Your task to perform on an android device: check battery use Image 0: 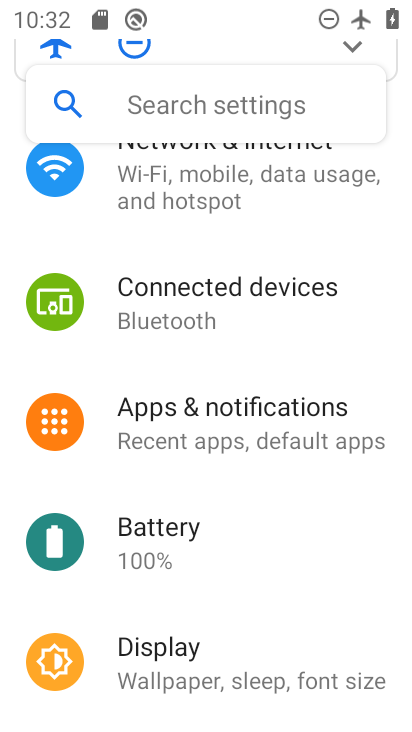
Step 0: press home button
Your task to perform on an android device: check battery use Image 1: 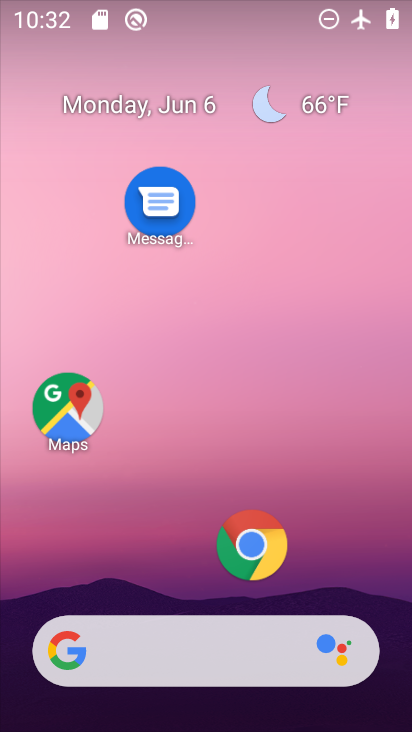
Step 1: drag from (161, 578) to (89, 171)
Your task to perform on an android device: check battery use Image 2: 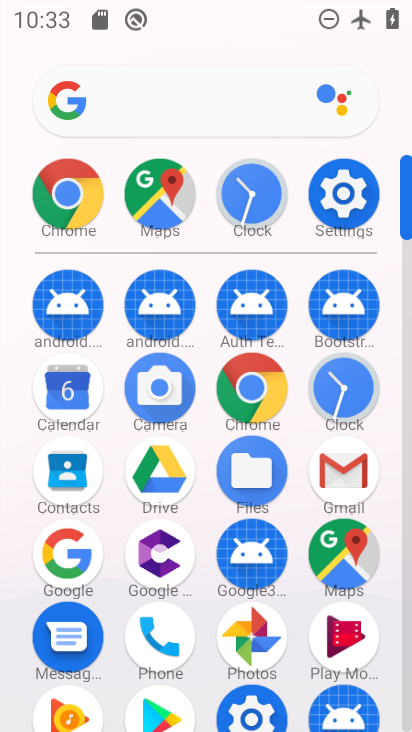
Step 2: click (341, 194)
Your task to perform on an android device: check battery use Image 3: 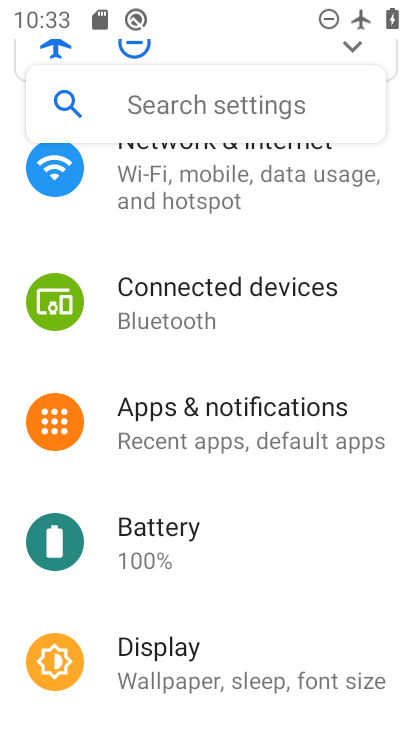
Step 3: click (175, 556)
Your task to perform on an android device: check battery use Image 4: 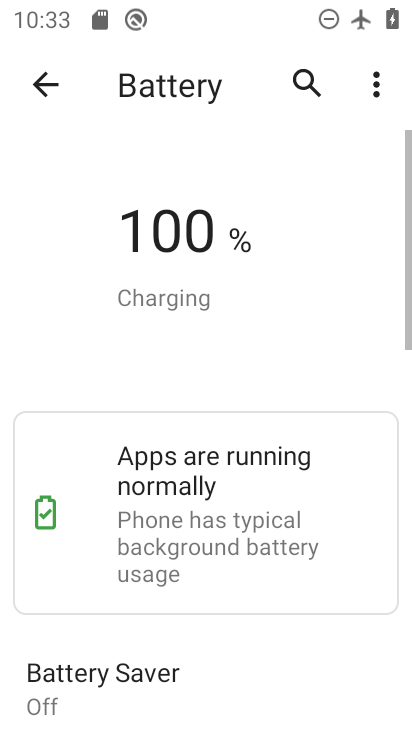
Step 4: task complete